Your task to perform on an android device: snooze an email in the gmail app Image 0: 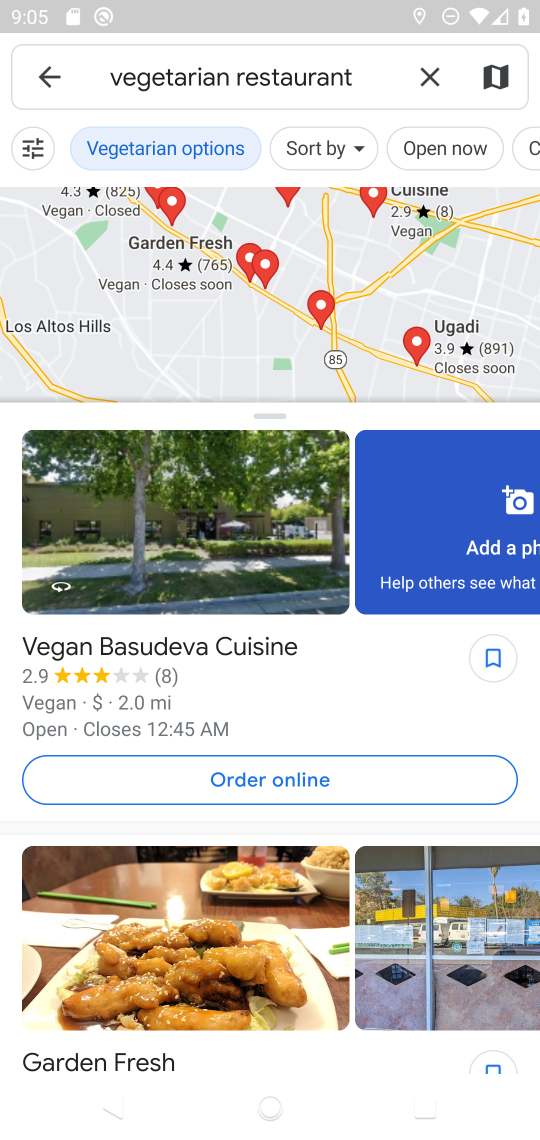
Step 0: press home button
Your task to perform on an android device: snooze an email in the gmail app Image 1: 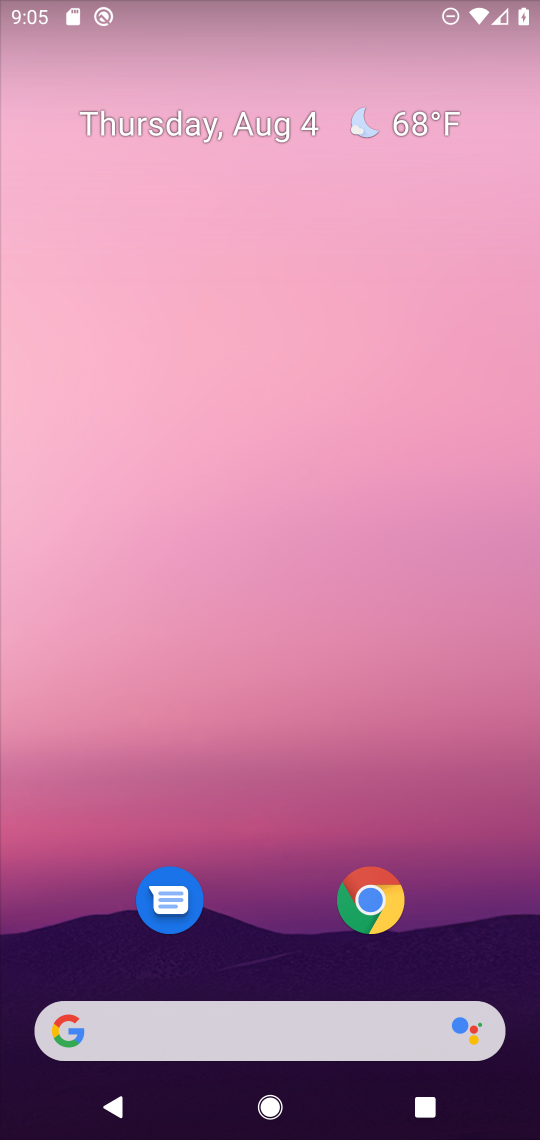
Step 1: drag from (225, 708) to (225, 230)
Your task to perform on an android device: snooze an email in the gmail app Image 2: 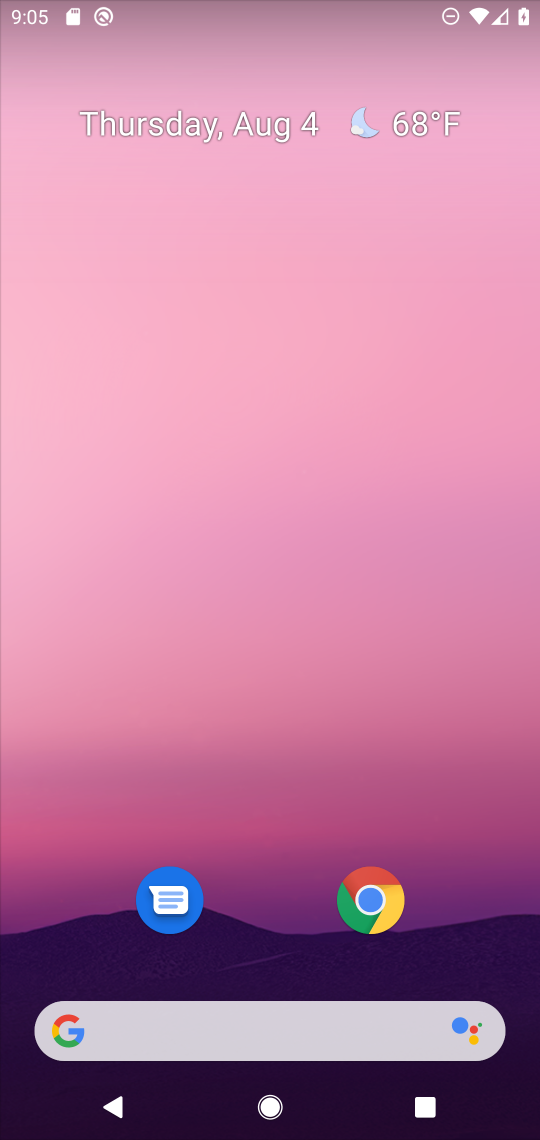
Step 2: drag from (242, 951) to (287, 257)
Your task to perform on an android device: snooze an email in the gmail app Image 3: 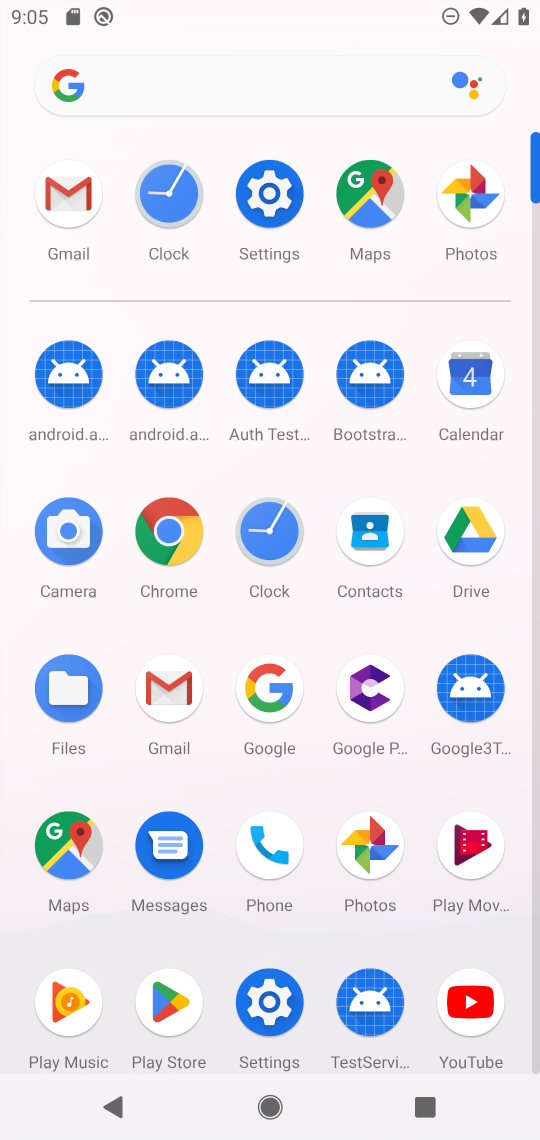
Step 3: click (70, 188)
Your task to perform on an android device: snooze an email in the gmail app Image 4: 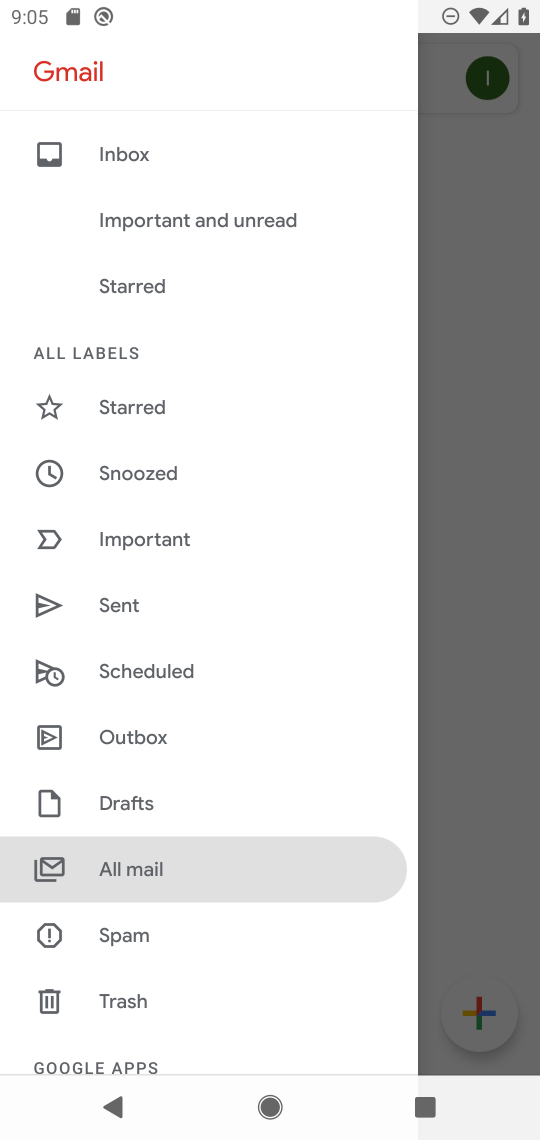
Step 4: click (127, 864)
Your task to perform on an android device: snooze an email in the gmail app Image 5: 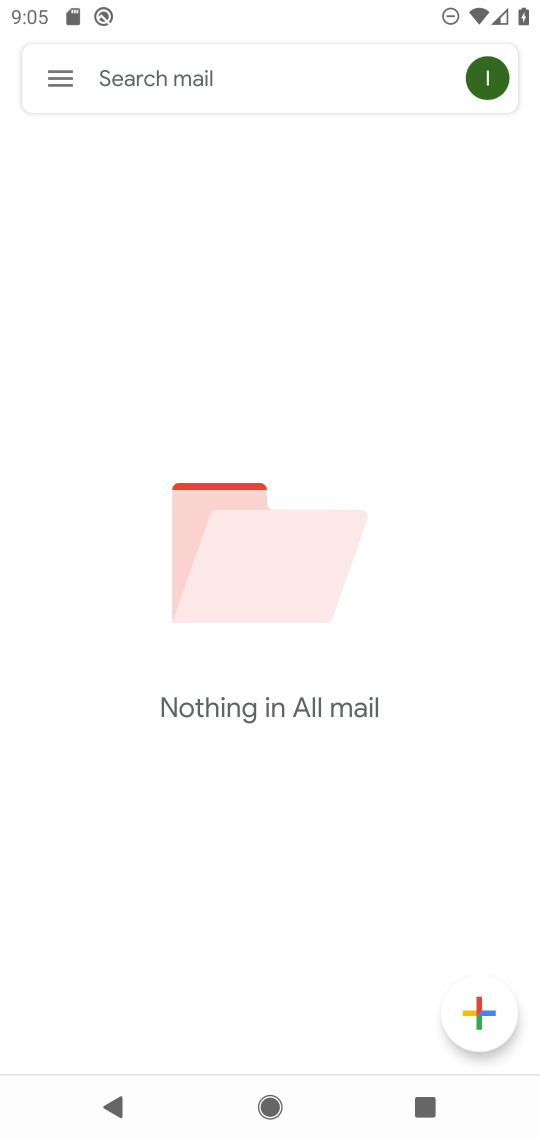
Step 5: task complete